Your task to perform on an android device: toggle sleep mode Image 0: 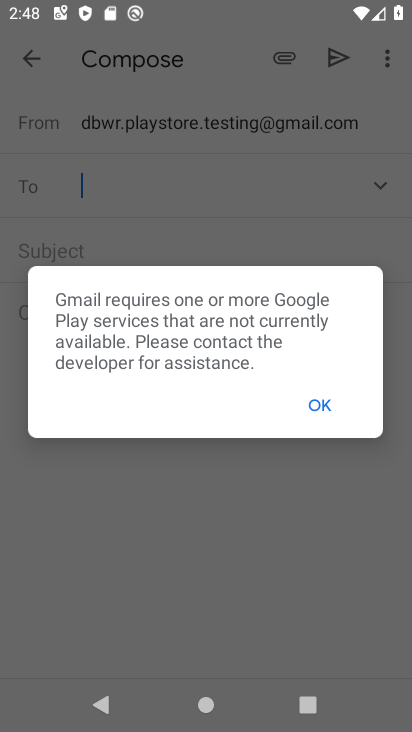
Step 0: click (308, 400)
Your task to perform on an android device: toggle sleep mode Image 1: 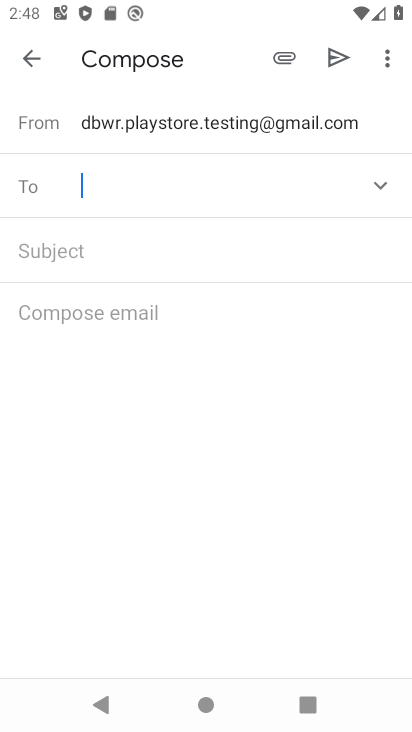
Step 1: press home button
Your task to perform on an android device: toggle sleep mode Image 2: 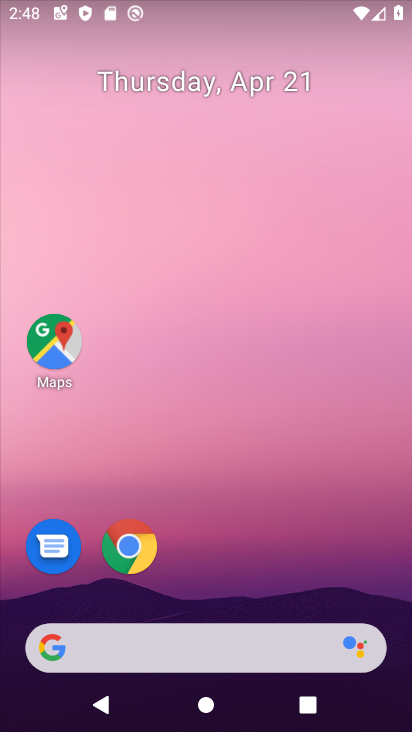
Step 2: drag from (285, 522) to (265, 84)
Your task to perform on an android device: toggle sleep mode Image 3: 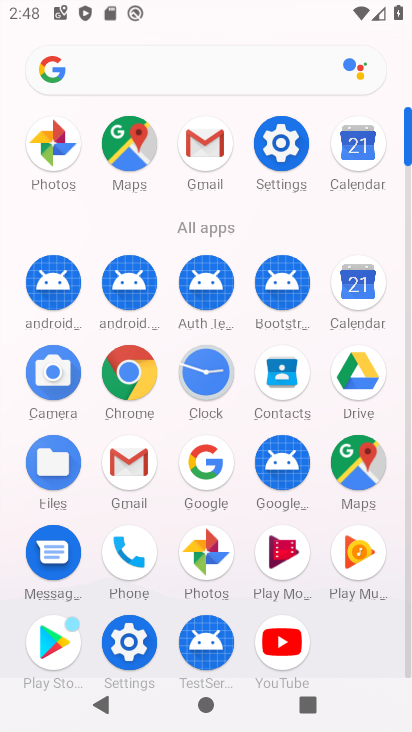
Step 3: click (271, 152)
Your task to perform on an android device: toggle sleep mode Image 4: 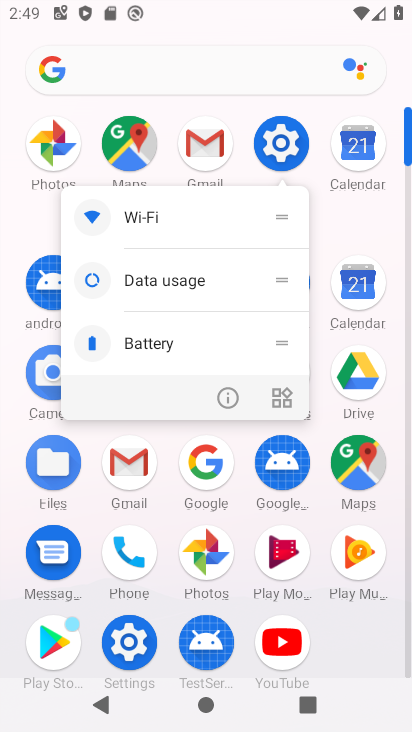
Step 4: click (271, 152)
Your task to perform on an android device: toggle sleep mode Image 5: 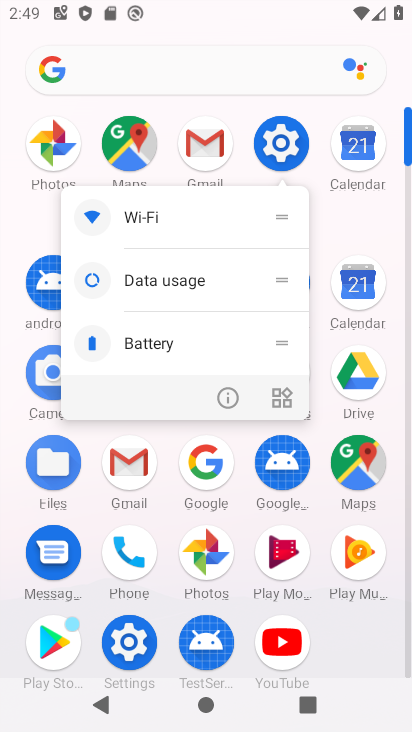
Step 5: click (297, 134)
Your task to perform on an android device: toggle sleep mode Image 6: 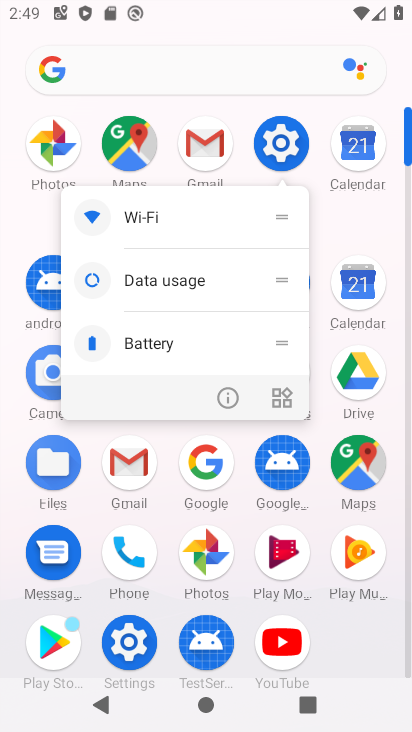
Step 6: click (297, 134)
Your task to perform on an android device: toggle sleep mode Image 7: 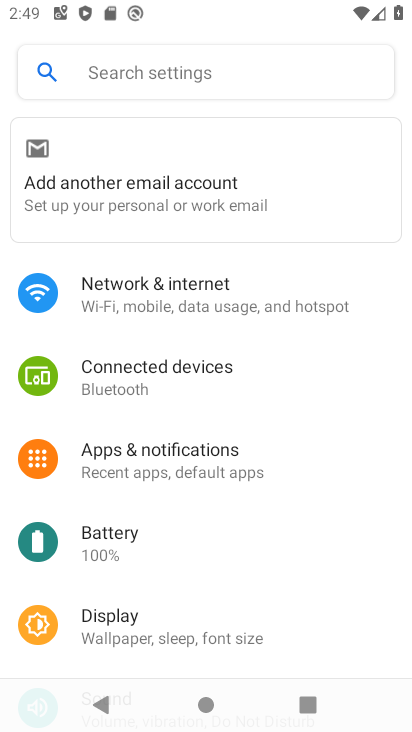
Step 7: click (175, 75)
Your task to perform on an android device: toggle sleep mode Image 8: 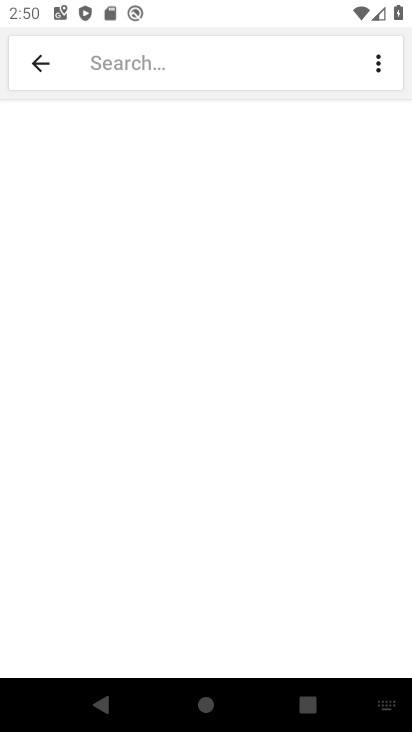
Step 8: type "sleep"
Your task to perform on an android device: toggle sleep mode Image 9: 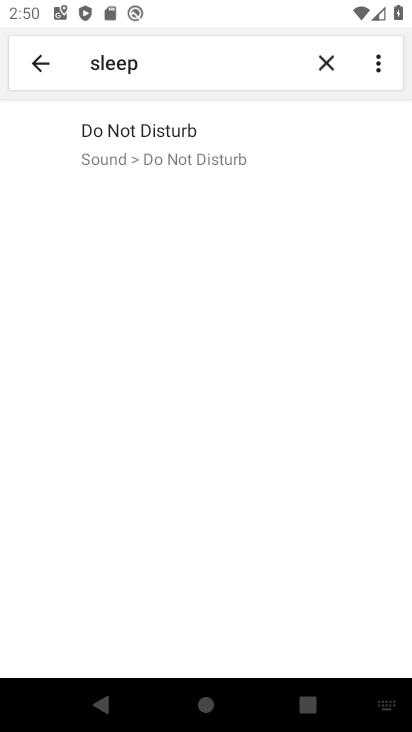
Step 9: click (222, 121)
Your task to perform on an android device: toggle sleep mode Image 10: 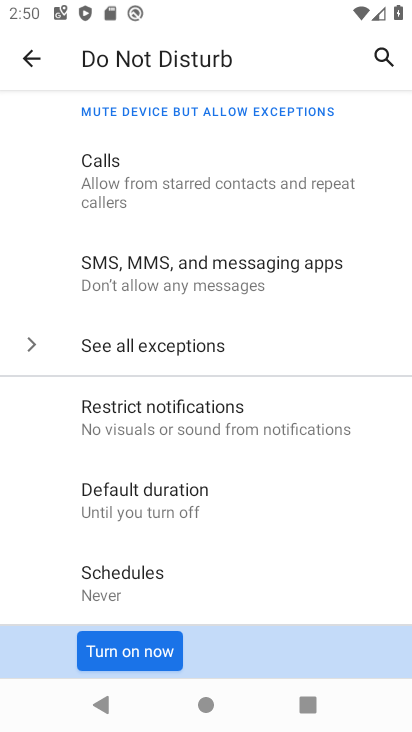
Step 10: task complete